Your task to perform on an android device: Clear the cart on walmart. Image 0: 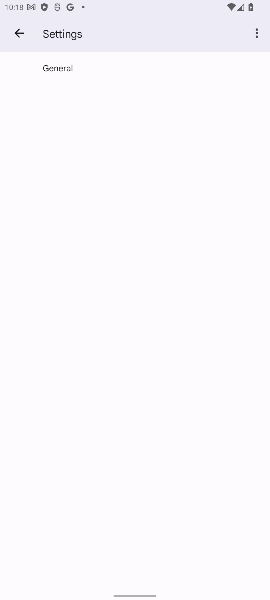
Step 0: press home button
Your task to perform on an android device: Clear the cart on walmart. Image 1: 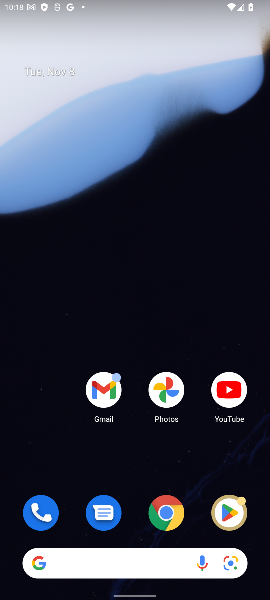
Step 1: click (165, 512)
Your task to perform on an android device: Clear the cart on walmart. Image 2: 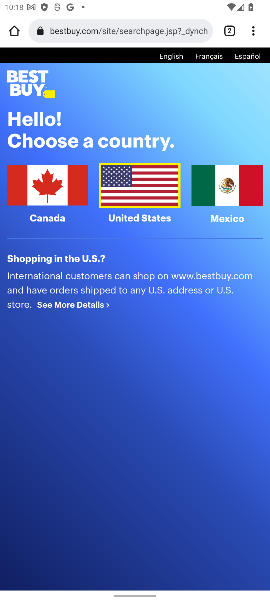
Step 2: click (229, 29)
Your task to perform on an android device: Clear the cart on walmart. Image 3: 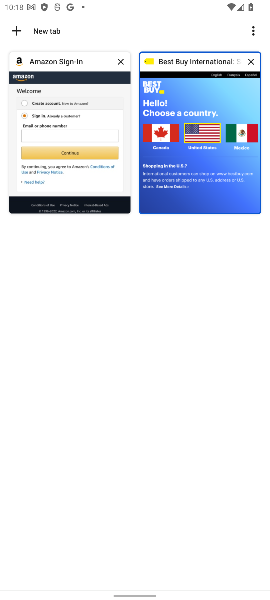
Step 3: click (13, 30)
Your task to perform on an android device: Clear the cart on walmart. Image 4: 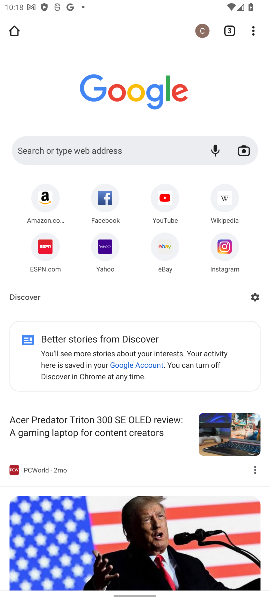
Step 4: click (86, 154)
Your task to perform on an android device: Clear the cart on walmart. Image 5: 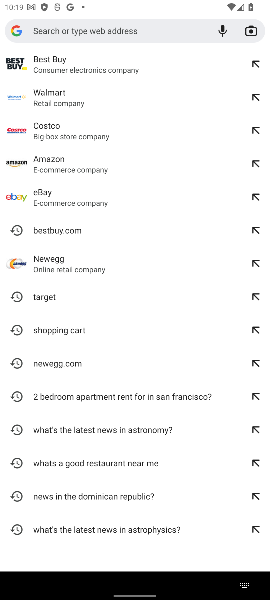
Step 5: type "walmar"
Your task to perform on an android device: Clear the cart on walmart. Image 6: 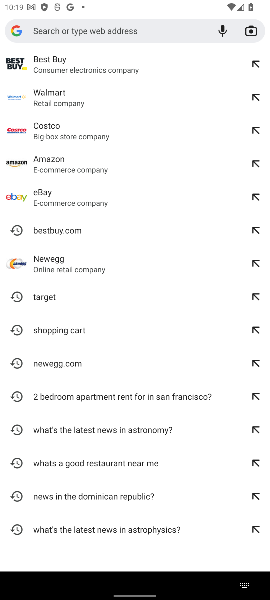
Step 6: click (59, 97)
Your task to perform on an android device: Clear the cart on walmart. Image 7: 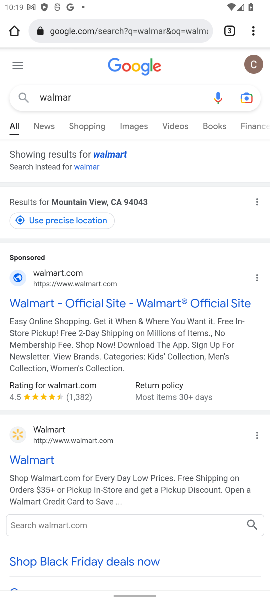
Step 7: click (38, 461)
Your task to perform on an android device: Clear the cart on walmart. Image 8: 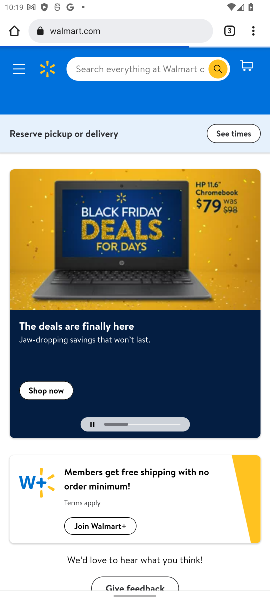
Step 8: task complete